Your task to perform on an android device: Open CNN.com Image 0: 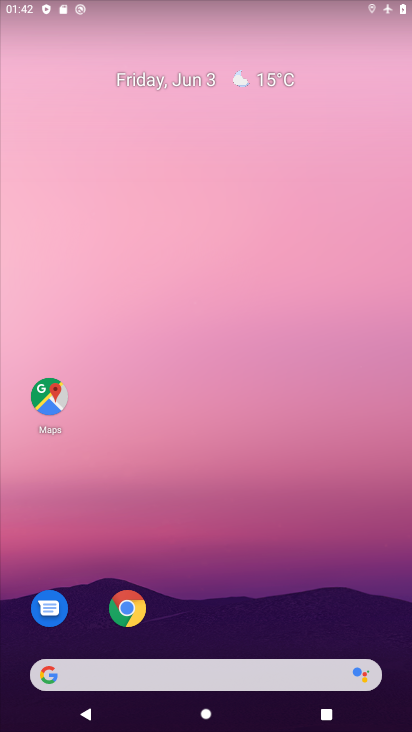
Step 0: click (131, 608)
Your task to perform on an android device: Open CNN.com Image 1: 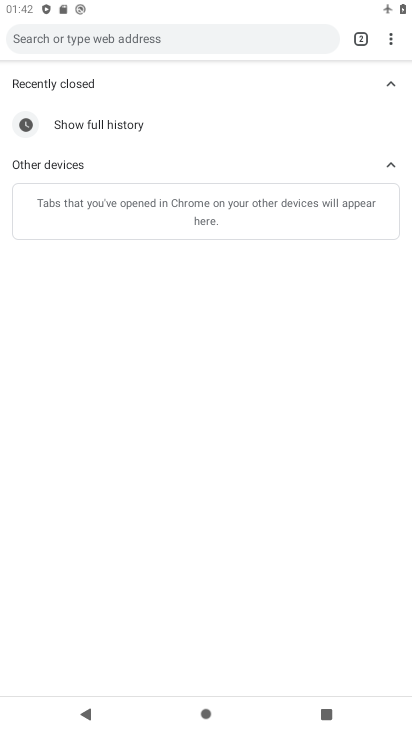
Step 1: click (111, 37)
Your task to perform on an android device: Open CNN.com Image 2: 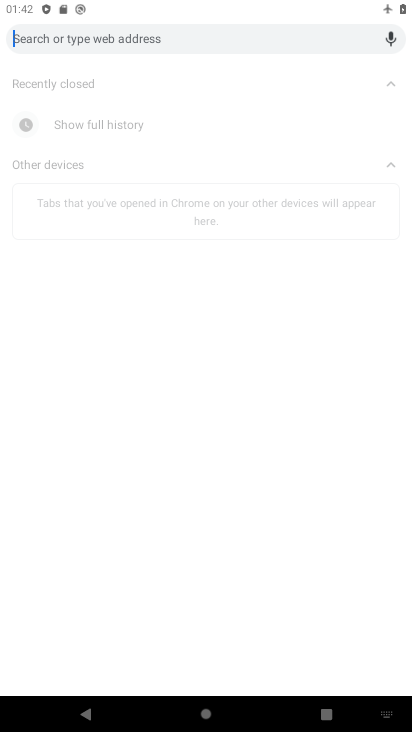
Step 2: type "cnn.com"
Your task to perform on an android device: Open CNN.com Image 3: 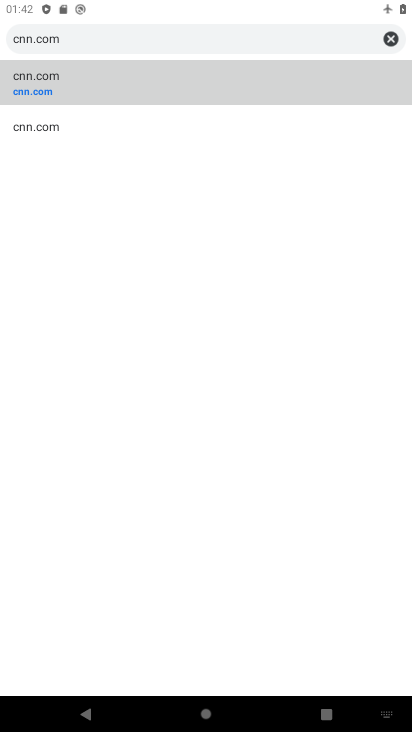
Step 3: click (37, 89)
Your task to perform on an android device: Open CNN.com Image 4: 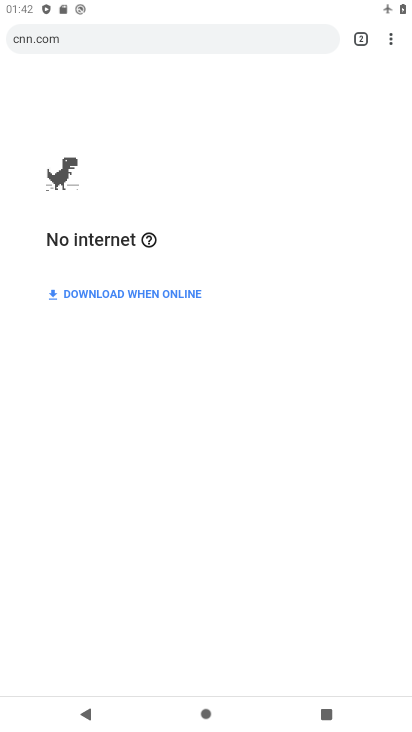
Step 4: task complete